Your task to perform on an android device: open wifi settings Image 0: 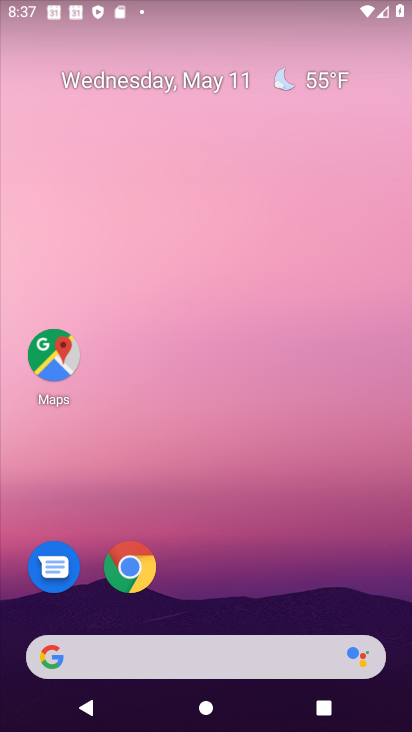
Step 0: drag from (236, 597) to (350, 71)
Your task to perform on an android device: open wifi settings Image 1: 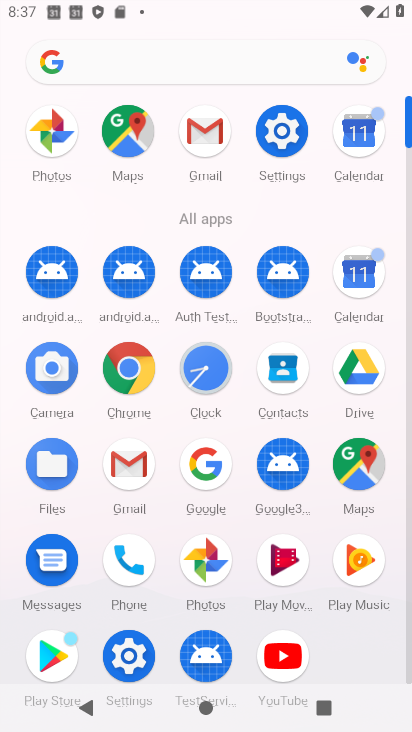
Step 1: click (293, 150)
Your task to perform on an android device: open wifi settings Image 2: 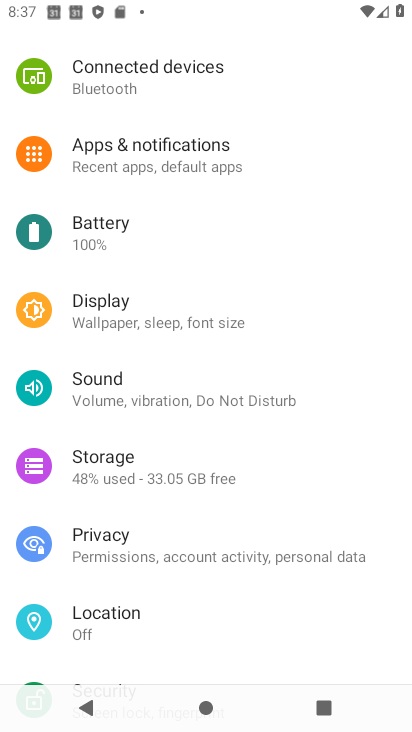
Step 2: drag from (244, 164) to (197, 555)
Your task to perform on an android device: open wifi settings Image 3: 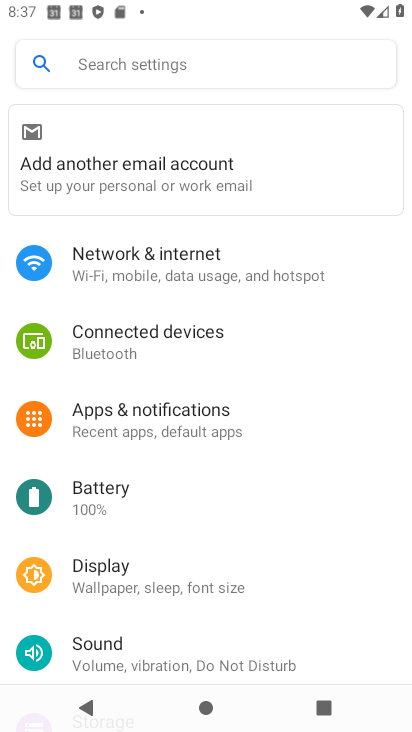
Step 3: click (168, 277)
Your task to perform on an android device: open wifi settings Image 4: 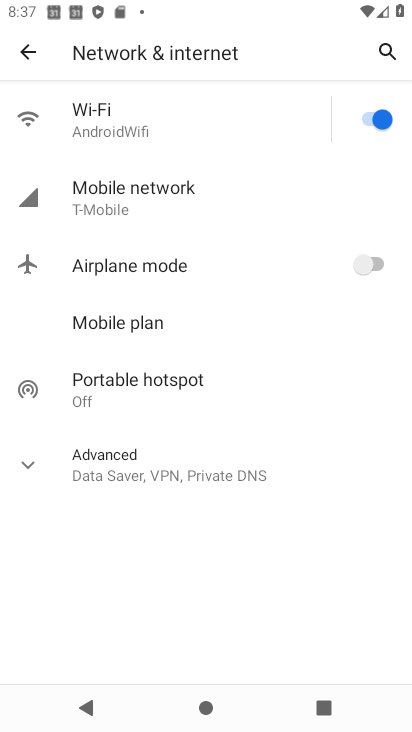
Step 4: click (159, 126)
Your task to perform on an android device: open wifi settings Image 5: 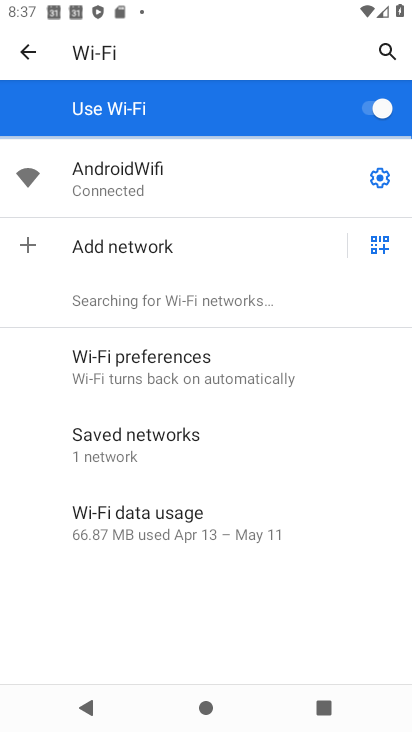
Step 5: task complete